Your task to perform on an android device: Set the phone to "Do not disturb". Image 0: 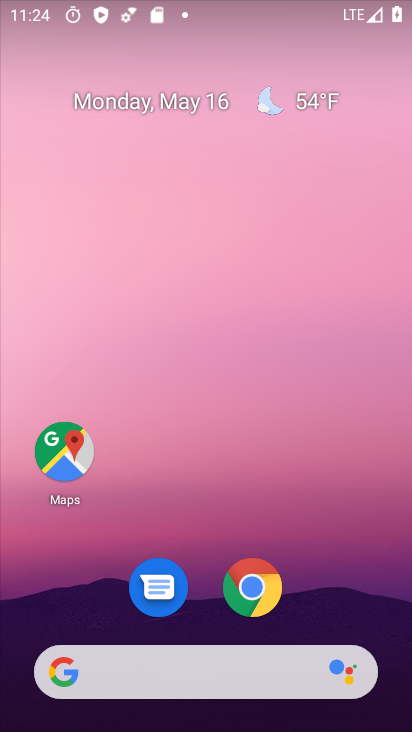
Step 0: drag from (178, 626) to (225, 112)
Your task to perform on an android device: Set the phone to "Do not disturb". Image 1: 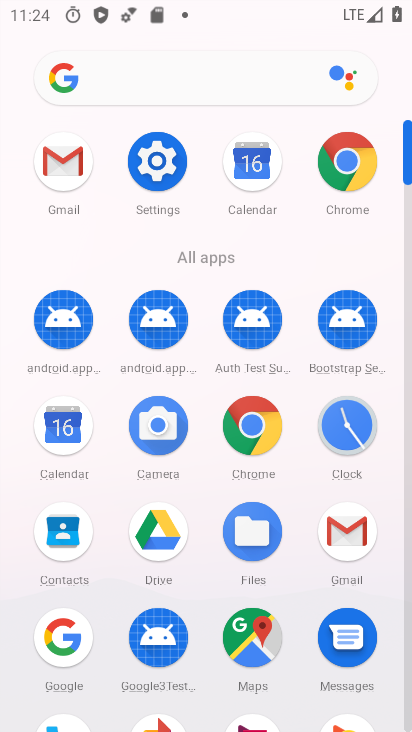
Step 1: drag from (192, 599) to (192, 175)
Your task to perform on an android device: Set the phone to "Do not disturb". Image 2: 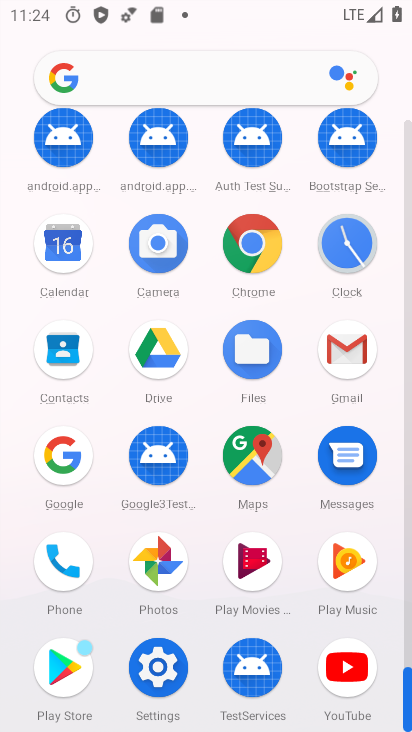
Step 2: drag from (193, 644) to (218, 225)
Your task to perform on an android device: Set the phone to "Do not disturb". Image 3: 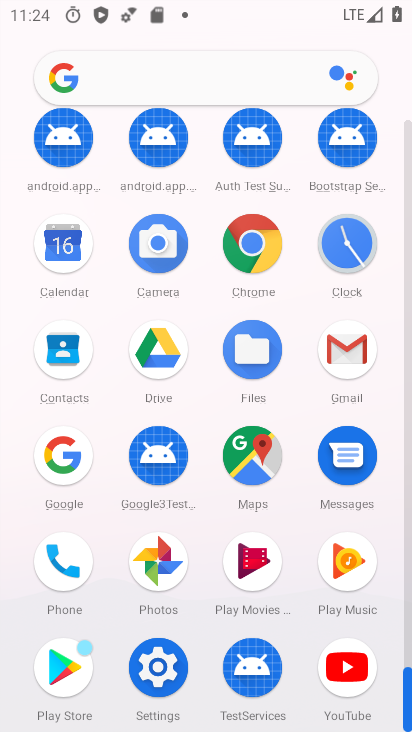
Step 3: click (157, 669)
Your task to perform on an android device: Set the phone to "Do not disturb". Image 4: 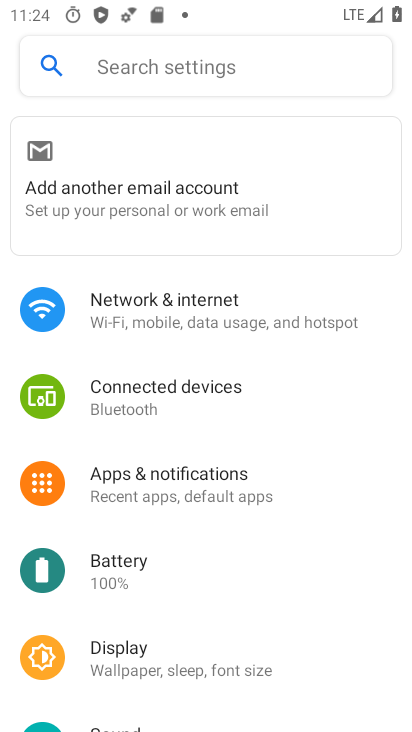
Step 4: drag from (181, 659) to (210, 267)
Your task to perform on an android device: Set the phone to "Do not disturb". Image 5: 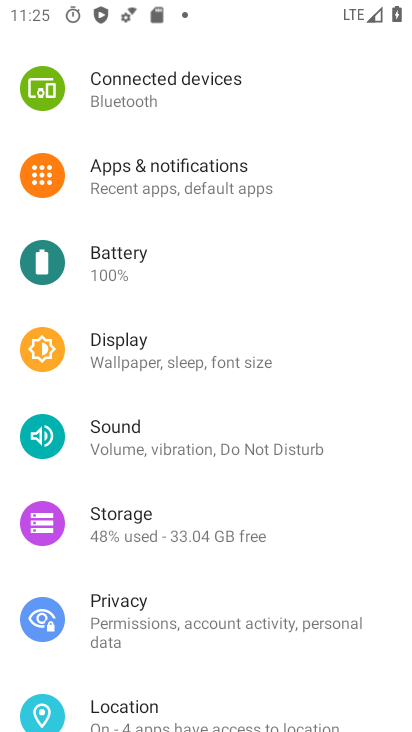
Step 5: click (180, 180)
Your task to perform on an android device: Set the phone to "Do not disturb". Image 6: 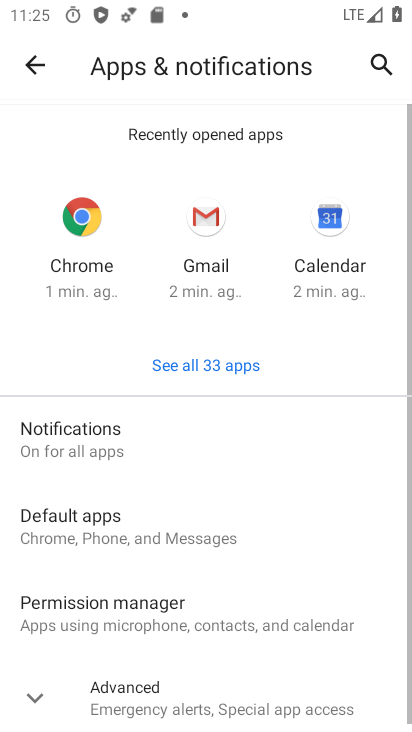
Step 6: click (122, 448)
Your task to perform on an android device: Set the phone to "Do not disturb". Image 7: 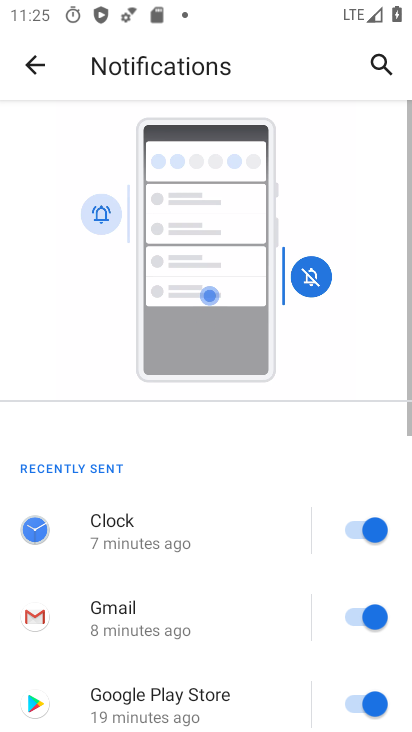
Step 7: drag from (193, 652) to (211, 401)
Your task to perform on an android device: Set the phone to "Do not disturb". Image 8: 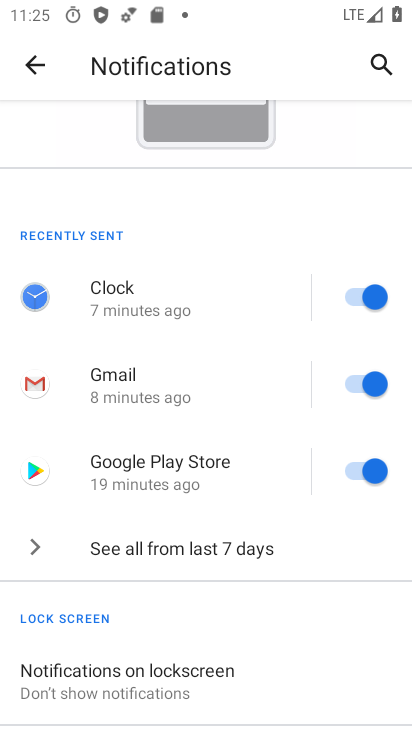
Step 8: drag from (241, 705) to (295, 175)
Your task to perform on an android device: Set the phone to "Do not disturb". Image 9: 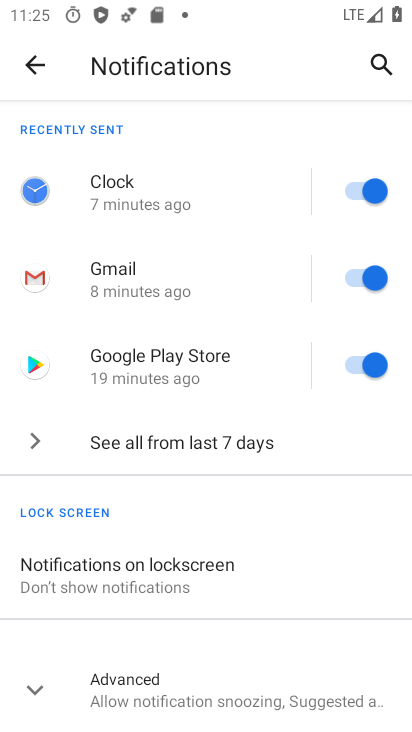
Step 9: click (87, 677)
Your task to perform on an android device: Set the phone to "Do not disturb". Image 10: 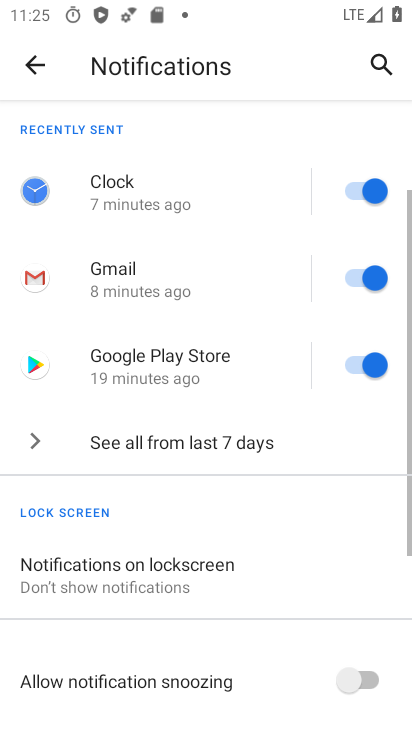
Step 10: drag from (155, 681) to (333, 2)
Your task to perform on an android device: Set the phone to "Do not disturb". Image 11: 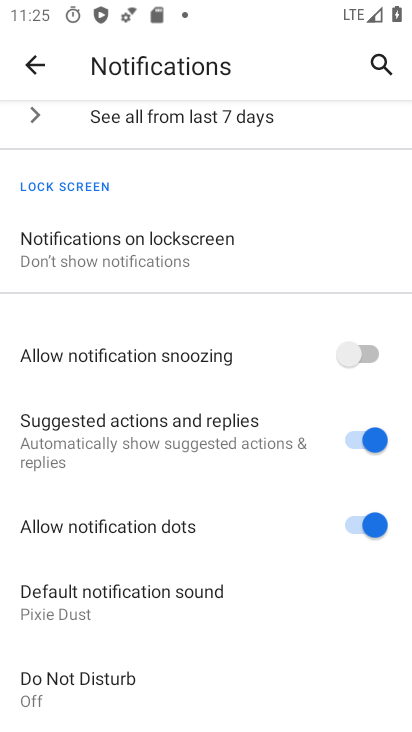
Step 11: click (149, 680)
Your task to perform on an android device: Set the phone to "Do not disturb". Image 12: 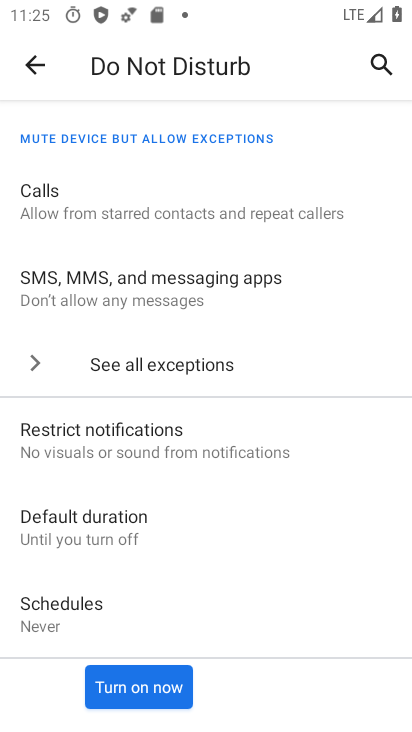
Step 12: click (135, 694)
Your task to perform on an android device: Set the phone to "Do not disturb". Image 13: 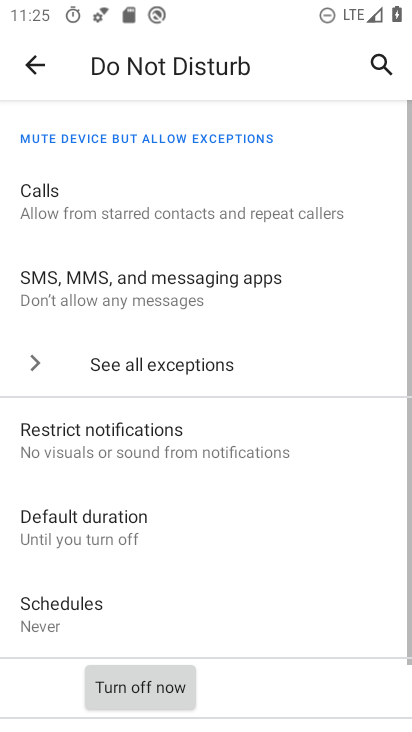
Step 13: task complete